Your task to perform on an android device: What is the recent news? Image 0: 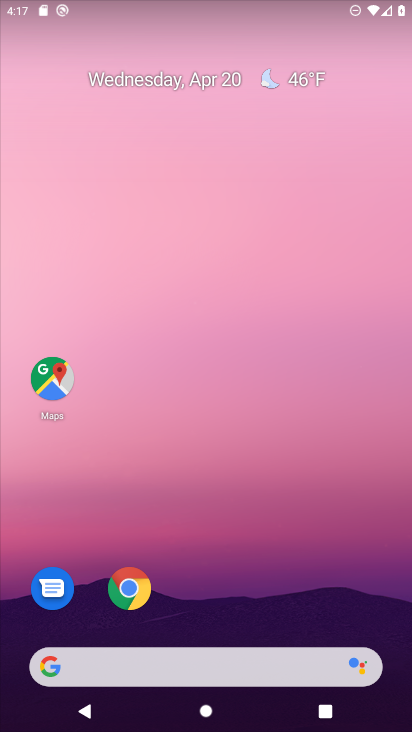
Step 0: drag from (206, 714) to (219, 135)
Your task to perform on an android device: What is the recent news? Image 1: 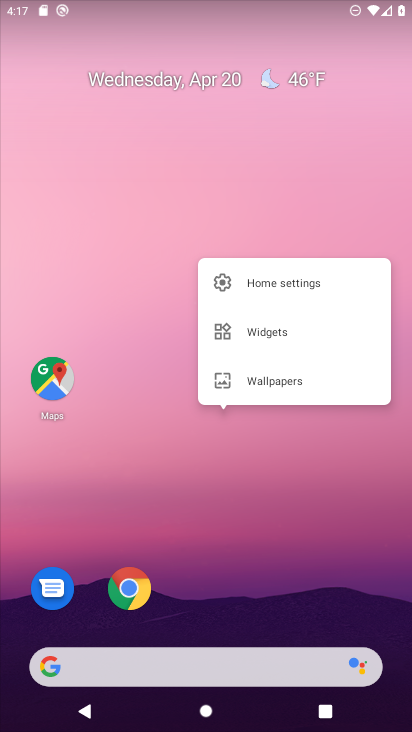
Step 1: click (205, 210)
Your task to perform on an android device: What is the recent news? Image 2: 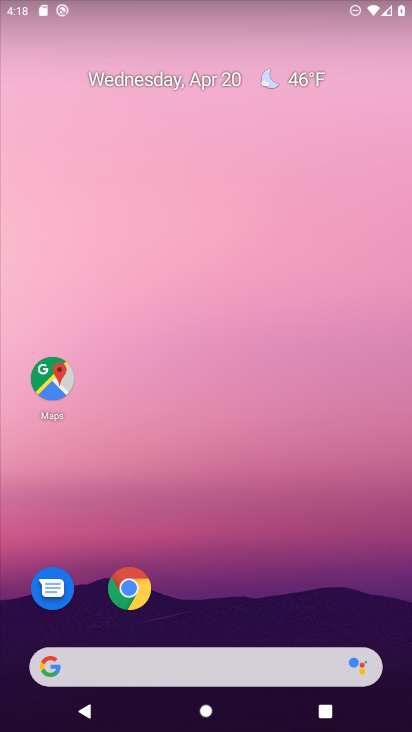
Step 2: click (125, 592)
Your task to perform on an android device: What is the recent news? Image 3: 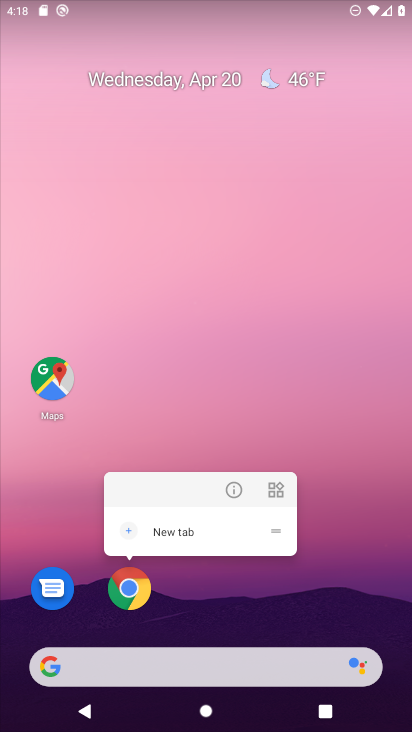
Step 3: click (130, 581)
Your task to perform on an android device: What is the recent news? Image 4: 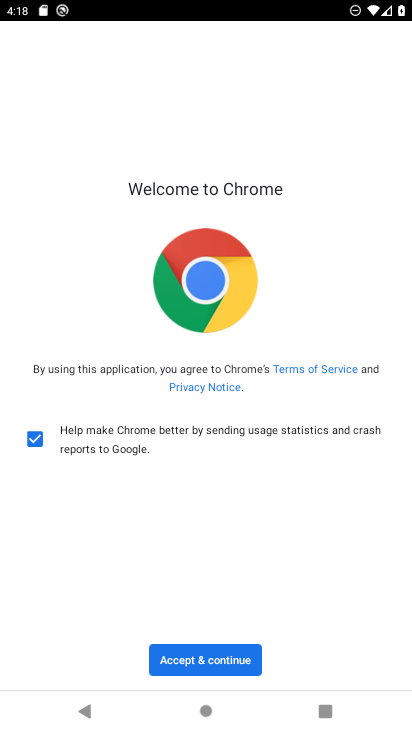
Step 4: click (215, 658)
Your task to perform on an android device: What is the recent news? Image 5: 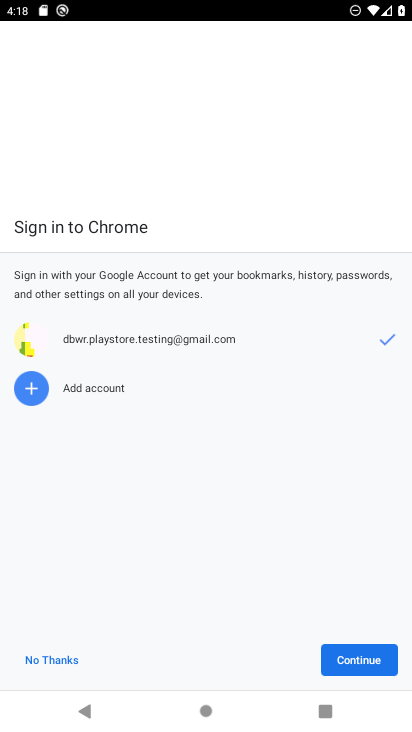
Step 5: click (363, 660)
Your task to perform on an android device: What is the recent news? Image 6: 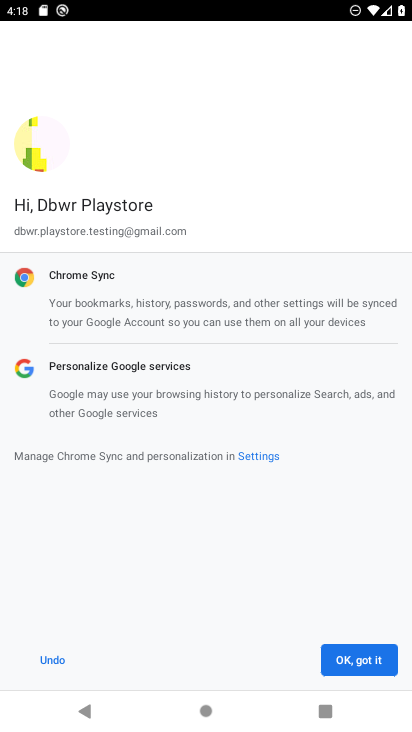
Step 6: click (363, 660)
Your task to perform on an android device: What is the recent news? Image 7: 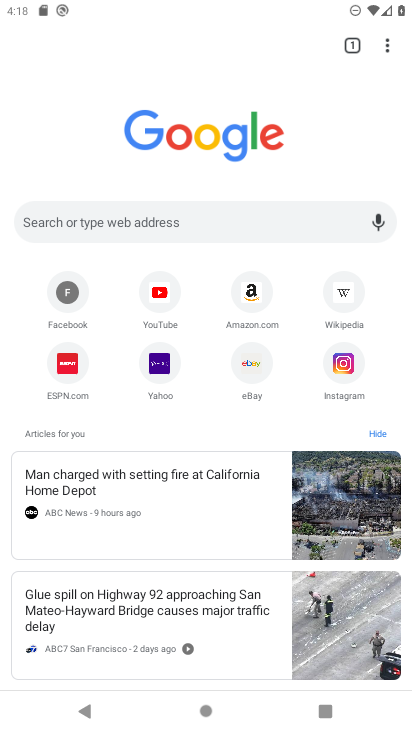
Step 7: task complete